Your task to perform on an android device: Go to Android settings Image 0: 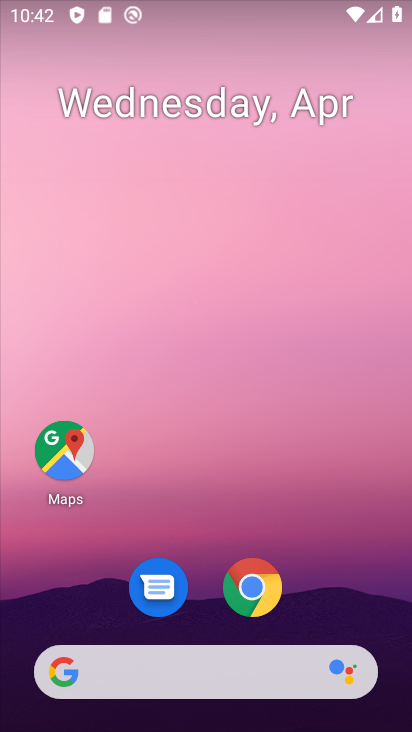
Step 0: drag from (188, 563) to (257, 13)
Your task to perform on an android device: Go to Android settings Image 1: 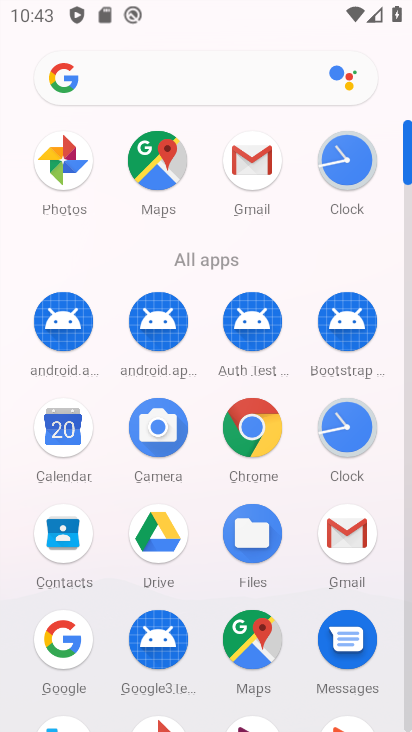
Step 1: drag from (177, 656) to (260, 97)
Your task to perform on an android device: Go to Android settings Image 2: 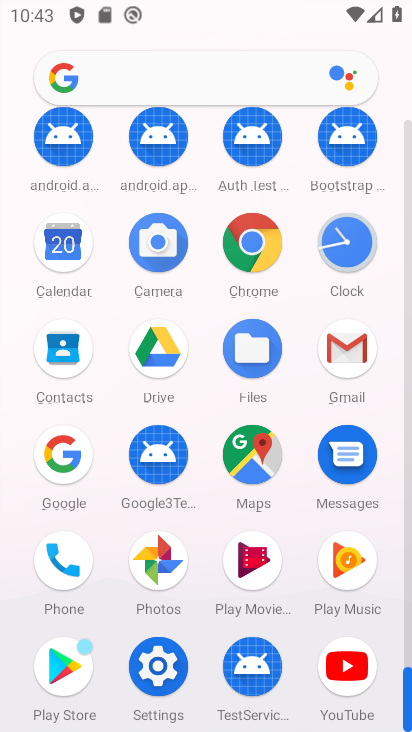
Step 2: click (152, 680)
Your task to perform on an android device: Go to Android settings Image 3: 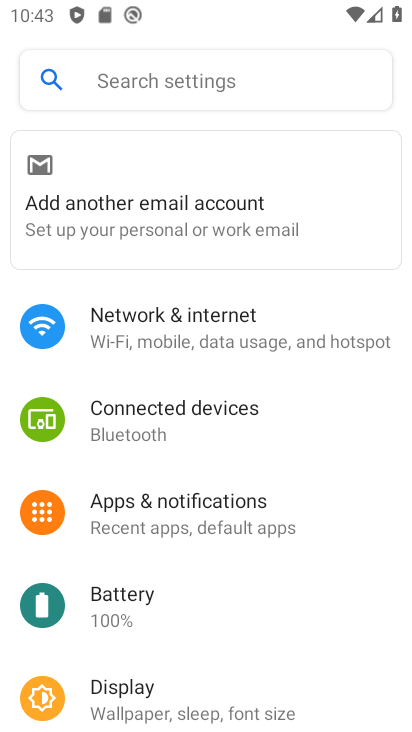
Step 3: drag from (218, 666) to (303, 28)
Your task to perform on an android device: Go to Android settings Image 4: 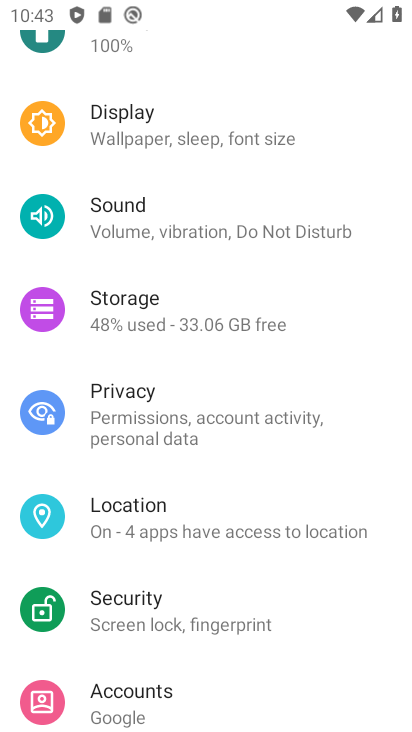
Step 4: drag from (207, 633) to (327, 5)
Your task to perform on an android device: Go to Android settings Image 5: 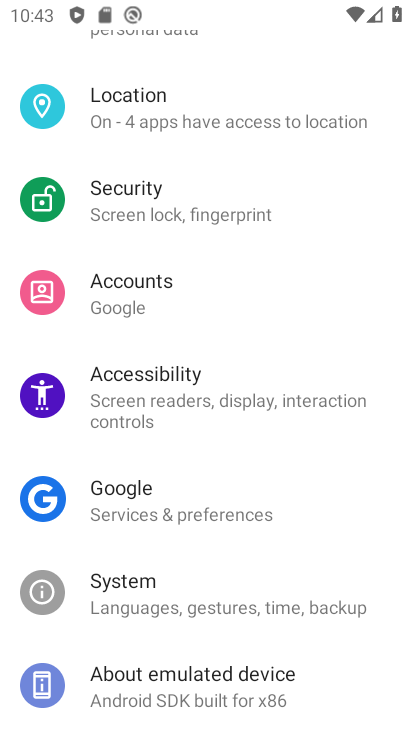
Step 5: click (177, 685)
Your task to perform on an android device: Go to Android settings Image 6: 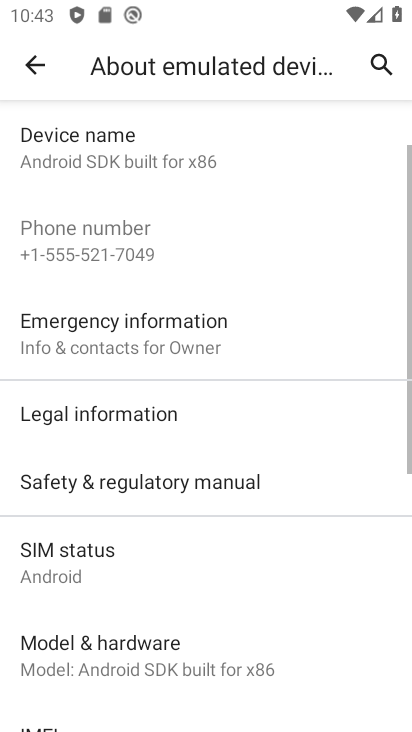
Step 6: drag from (136, 647) to (309, 38)
Your task to perform on an android device: Go to Android settings Image 7: 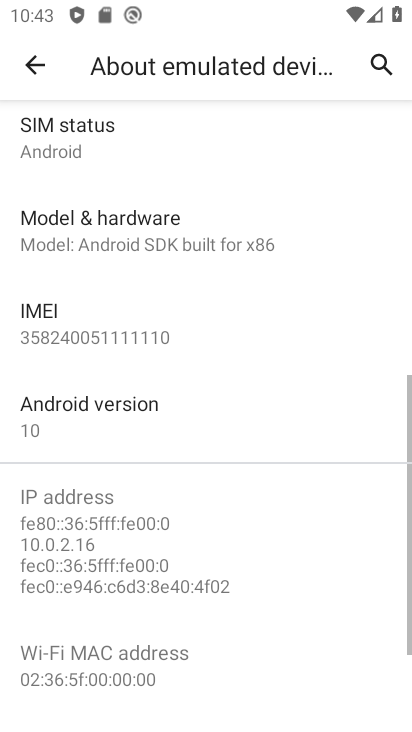
Step 7: click (93, 418)
Your task to perform on an android device: Go to Android settings Image 8: 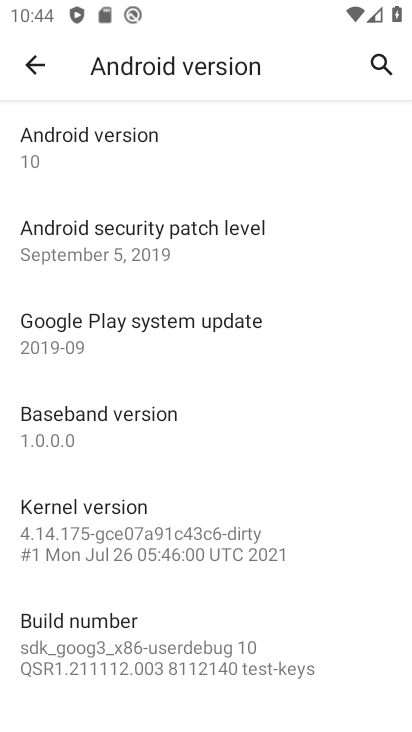
Step 8: task complete